Your task to perform on an android device: turn on notifications settings in the gmail app Image 0: 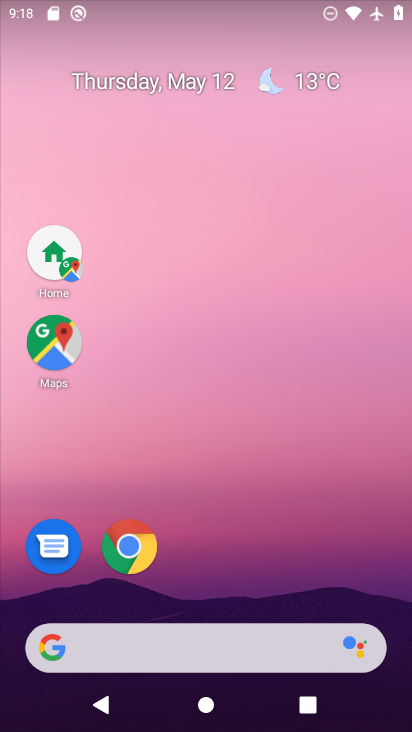
Step 0: drag from (217, 653) to (287, 180)
Your task to perform on an android device: turn on notifications settings in the gmail app Image 1: 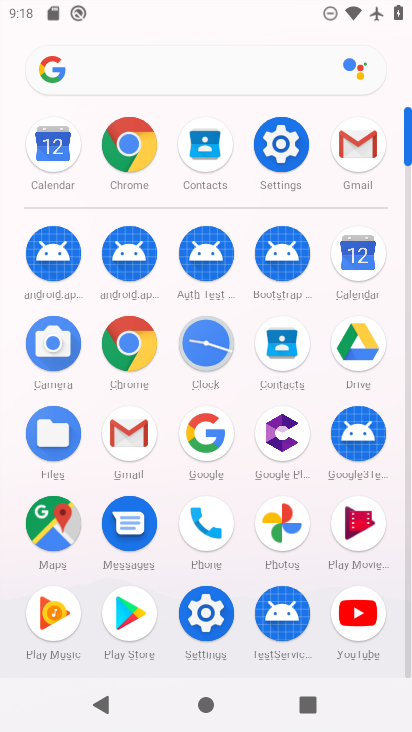
Step 1: click (359, 162)
Your task to perform on an android device: turn on notifications settings in the gmail app Image 2: 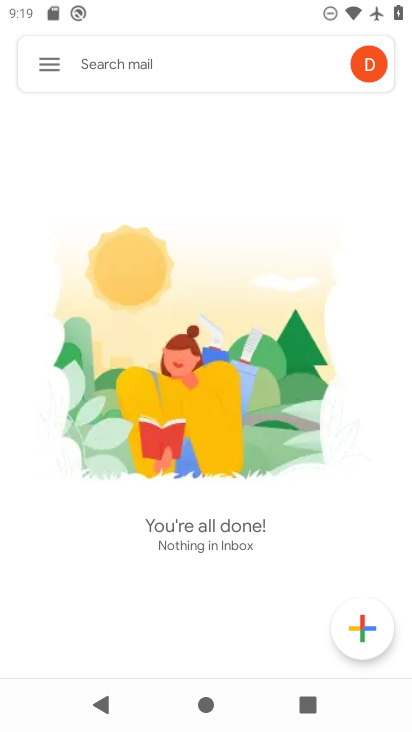
Step 2: click (55, 66)
Your task to perform on an android device: turn on notifications settings in the gmail app Image 3: 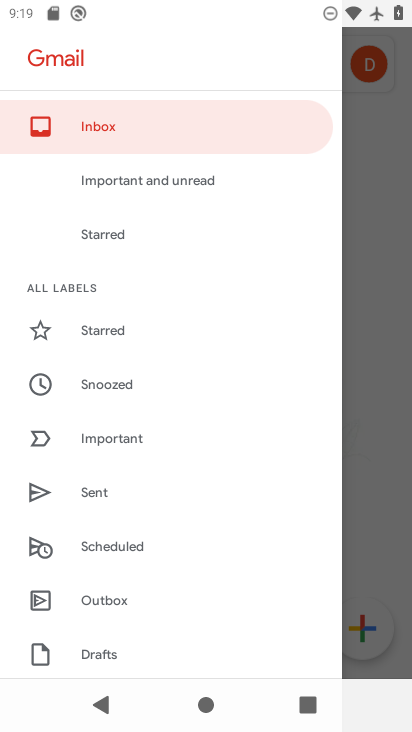
Step 3: drag from (196, 568) to (285, 65)
Your task to perform on an android device: turn on notifications settings in the gmail app Image 4: 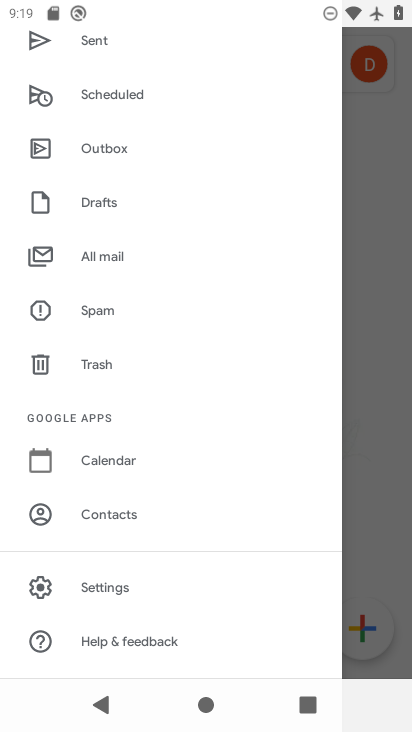
Step 4: click (106, 590)
Your task to perform on an android device: turn on notifications settings in the gmail app Image 5: 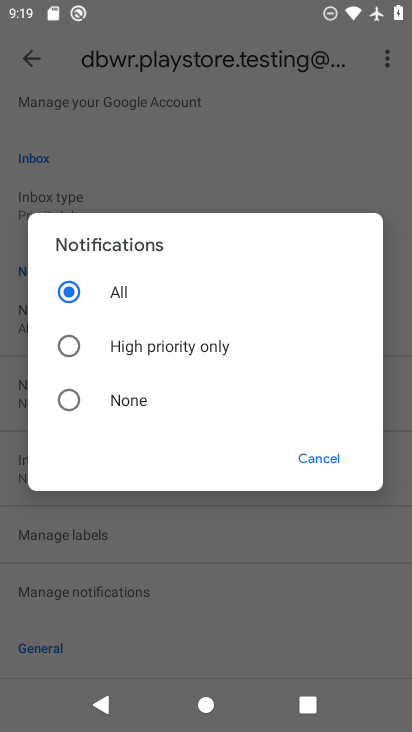
Step 5: click (309, 462)
Your task to perform on an android device: turn on notifications settings in the gmail app Image 6: 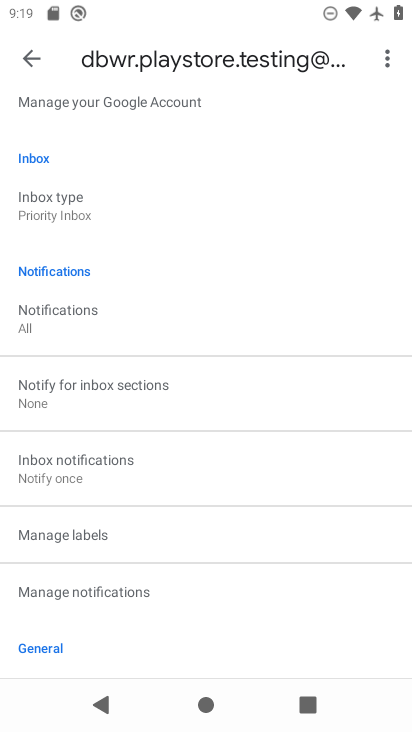
Step 6: task complete